Your task to perform on an android device: Check the news Image 0: 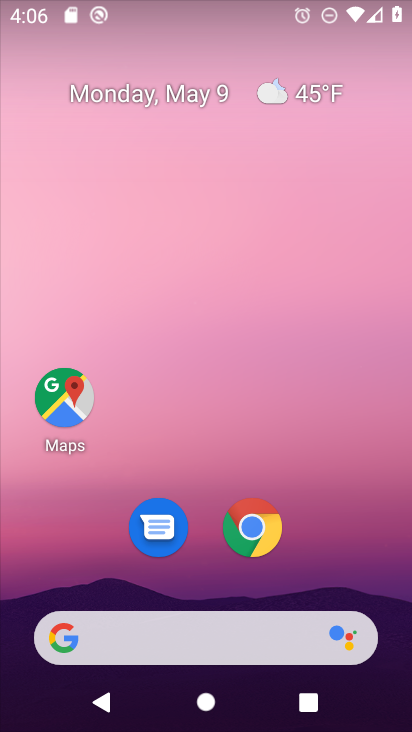
Step 0: drag from (340, 531) to (306, 151)
Your task to perform on an android device: Check the news Image 1: 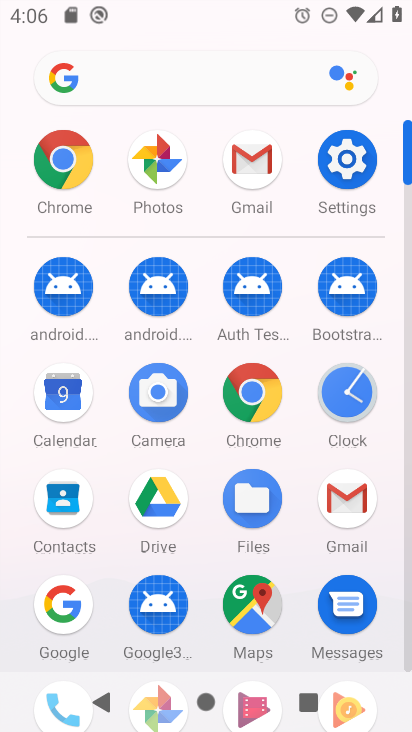
Step 1: click (68, 158)
Your task to perform on an android device: Check the news Image 2: 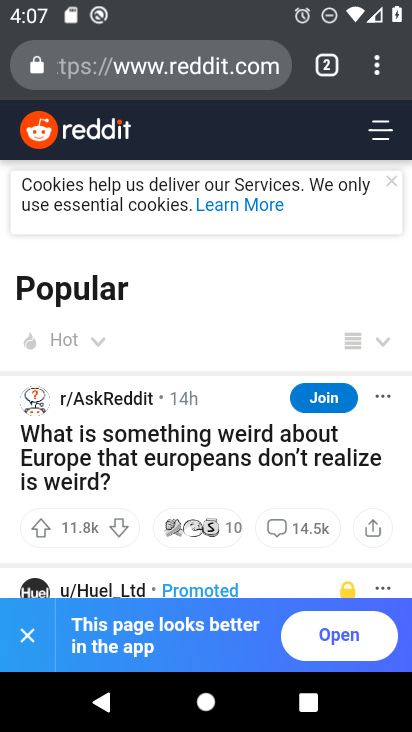
Step 2: click (226, 72)
Your task to perform on an android device: Check the news Image 3: 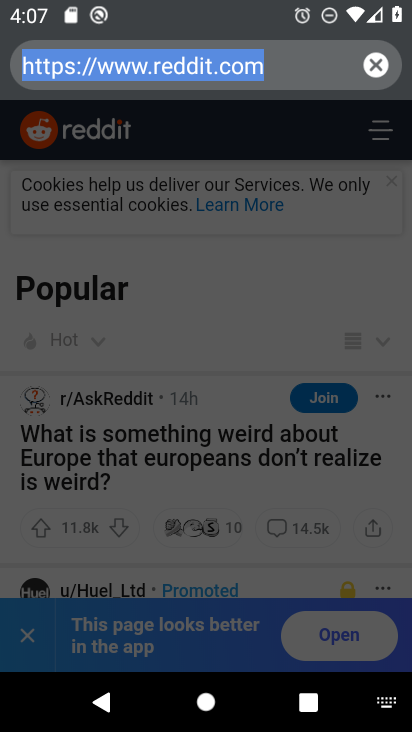
Step 3: type "news"
Your task to perform on an android device: Check the news Image 4: 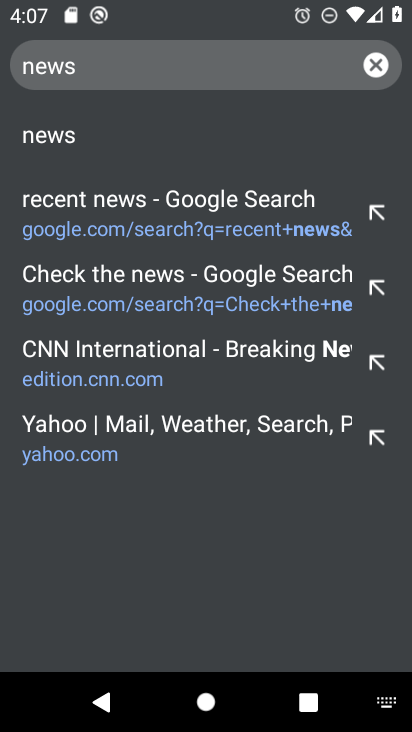
Step 4: click (146, 139)
Your task to perform on an android device: Check the news Image 5: 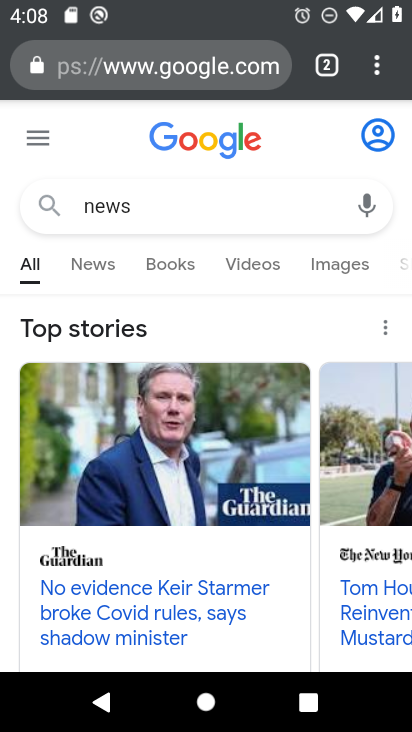
Step 5: task complete